Your task to perform on an android device: Go to Google Image 0: 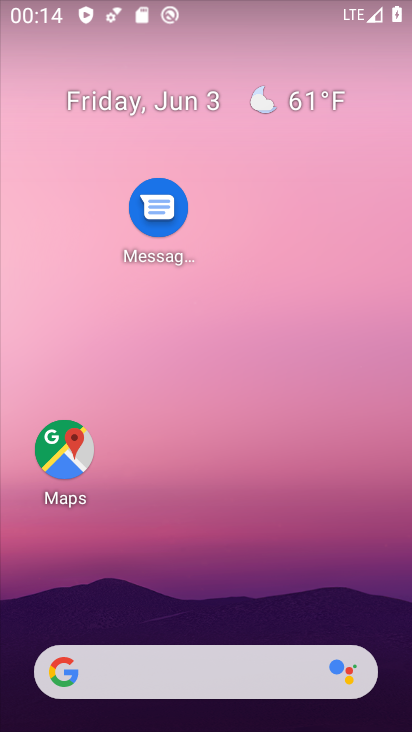
Step 0: drag from (245, 644) to (189, 8)
Your task to perform on an android device: Go to Google Image 1: 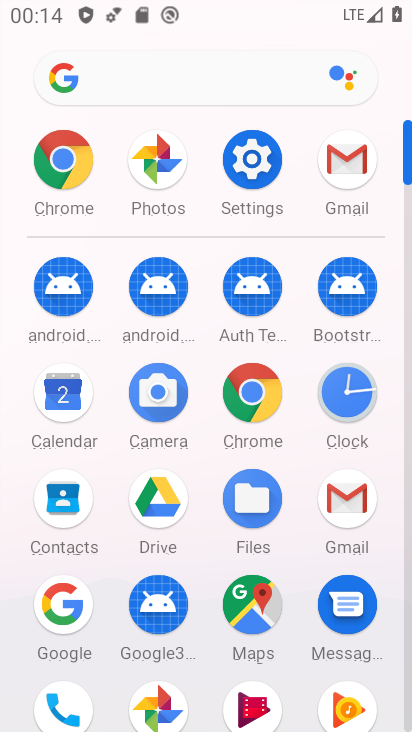
Step 1: click (88, 609)
Your task to perform on an android device: Go to Google Image 2: 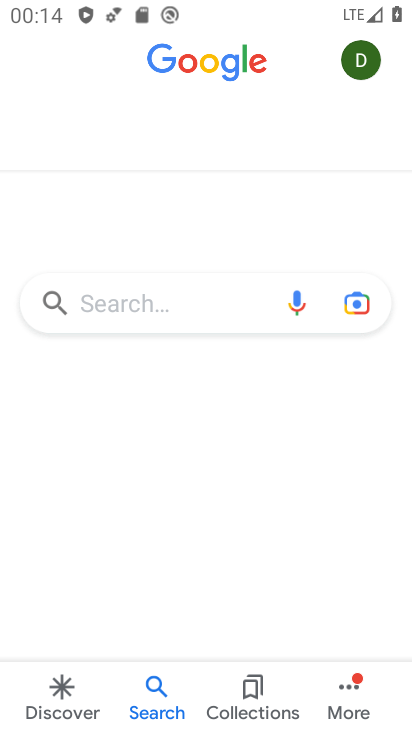
Step 2: task complete